Your task to perform on an android device: turn off translation in the chrome app Image 0: 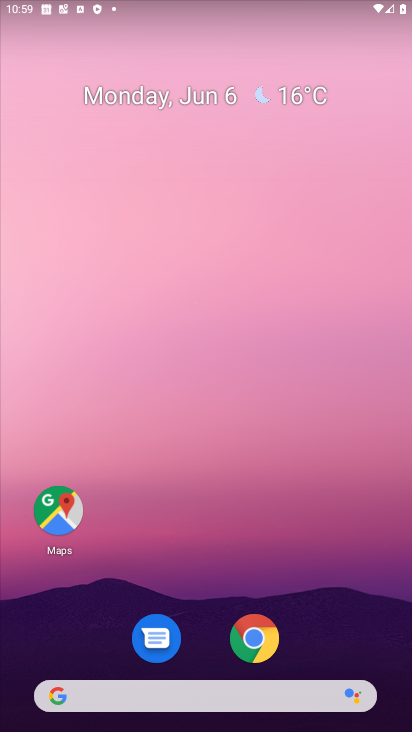
Step 0: click (344, 58)
Your task to perform on an android device: turn off translation in the chrome app Image 1: 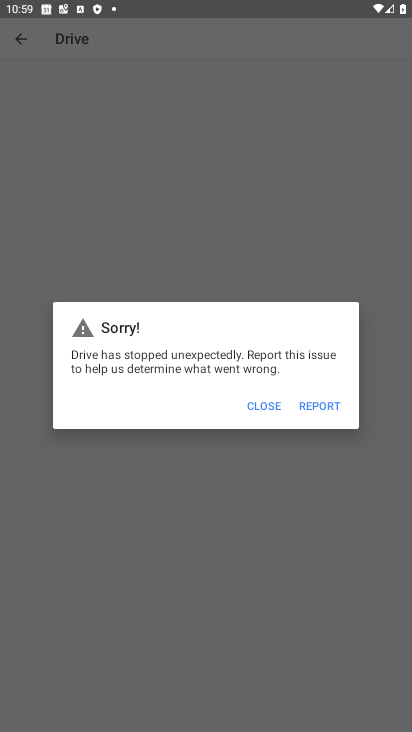
Step 1: press home button
Your task to perform on an android device: turn off translation in the chrome app Image 2: 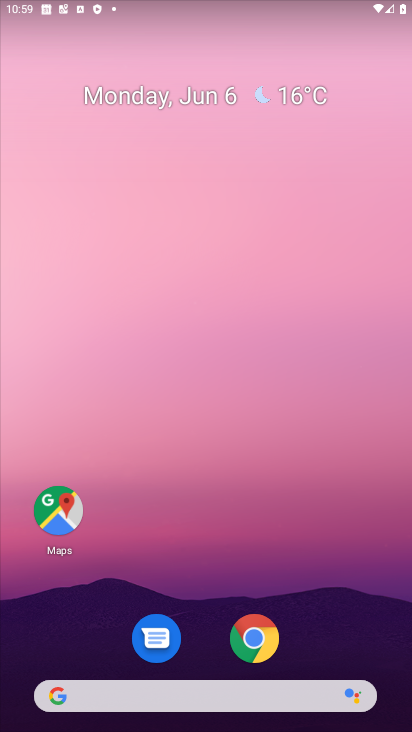
Step 2: drag from (201, 713) to (389, 201)
Your task to perform on an android device: turn off translation in the chrome app Image 3: 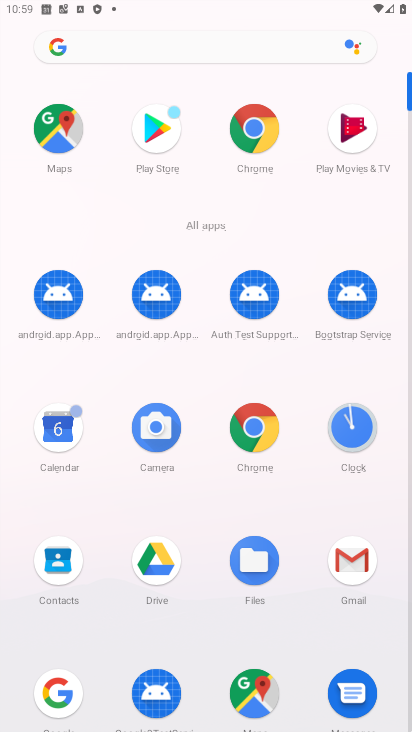
Step 3: click (248, 150)
Your task to perform on an android device: turn off translation in the chrome app Image 4: 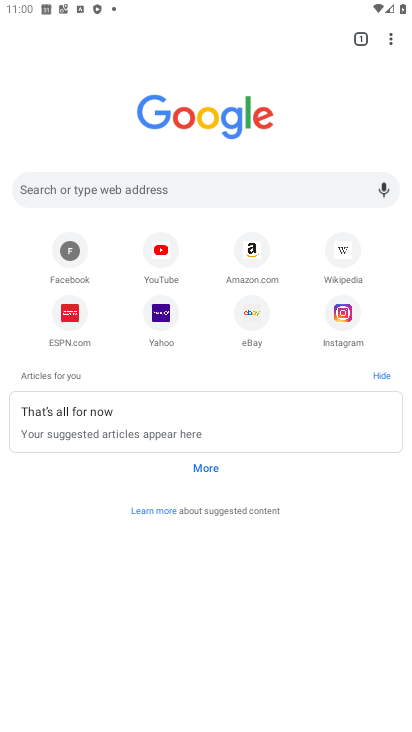
Step 4: click (376, 52)
Your task to perform on an android device: turn off translation in the chrome app Image 5: 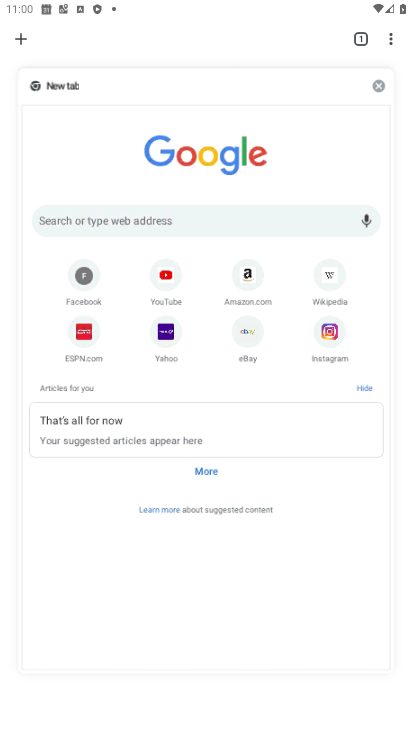
Step 5: click (388, 46)
Your task to perform on an android device: turn off translation in the chrome app Image 6: 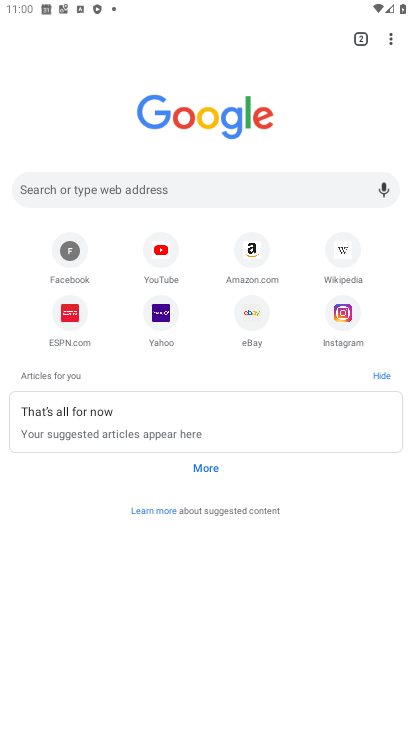
Step 6: click (390, 42)
Your task to perform on an android device: turn off translation in the chrome app Image 7: 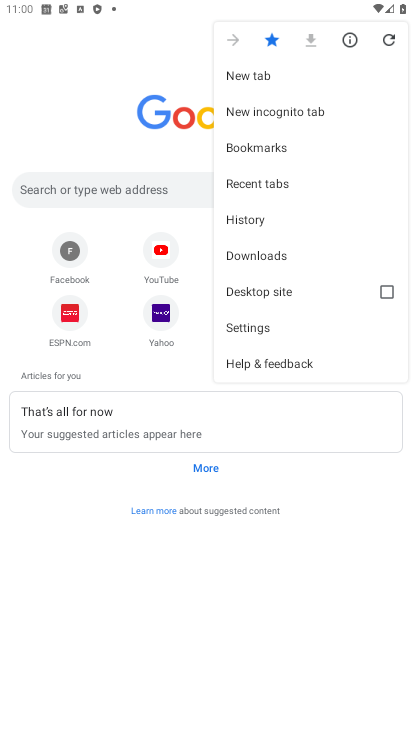
Step 7: click (241, 330)
Your task to perform on an android device: turn off translation in the chrome app Image 8: 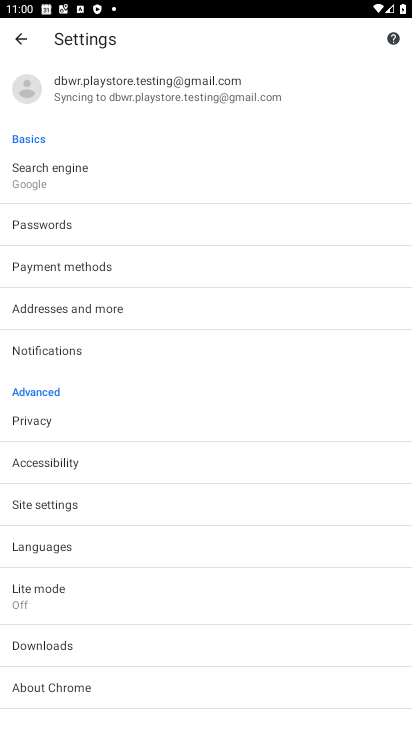
Step 8: click (132, 544)
Your task to perform on an android device: turn off translation in the chrome app Image 9: 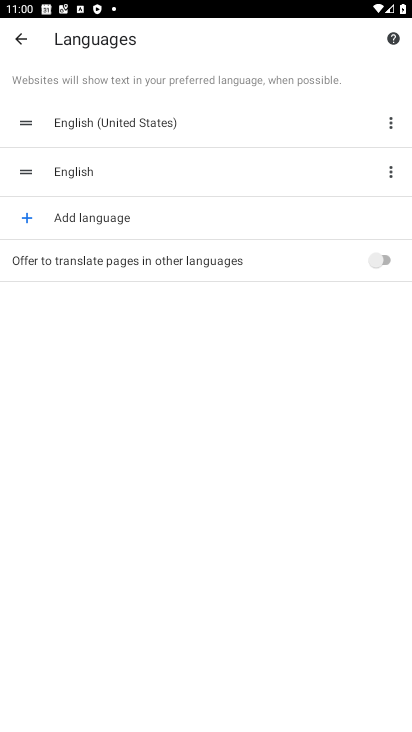
Step 9: click (389, 257)
Your task to perform on an android device: turn off translation in the chrome app Image 10: 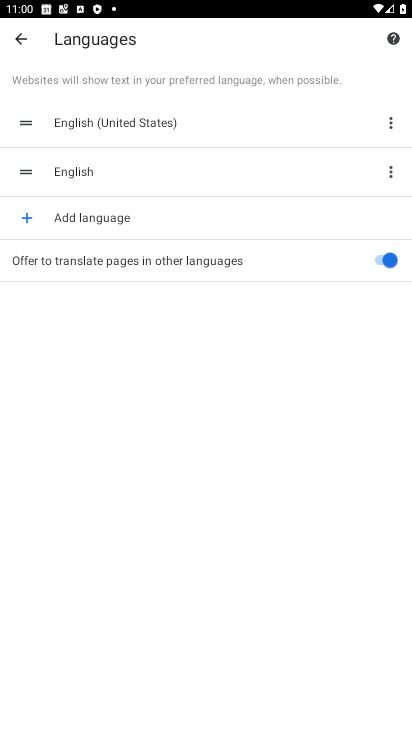
Step 10: click (389, 257)
Your task to perform on an android device: turn off translation in the chrome app Image 11: 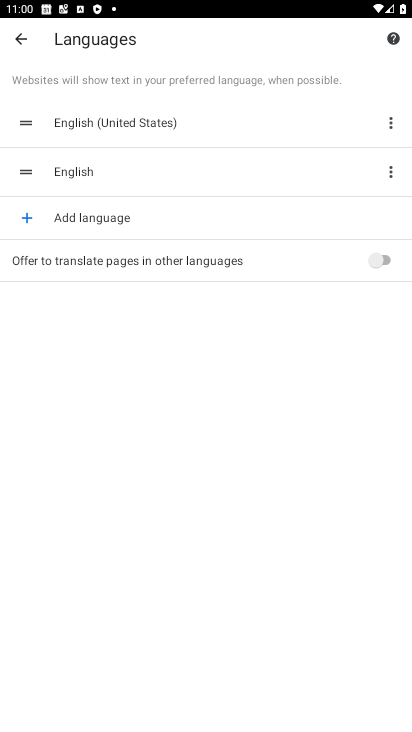
Step 11: task complete